Your task to perform on an android device: Go to accessibility settings Image 0: 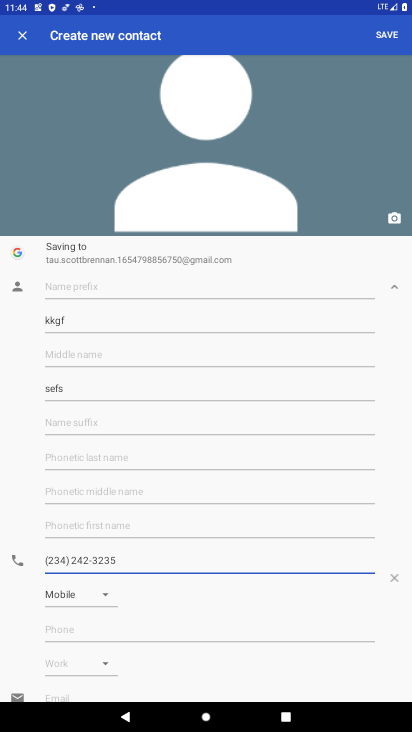
Step 0: drag from (301, 613) to (260, 262)
Your task to perform on an android device: Go to accessibility settings Image 1: 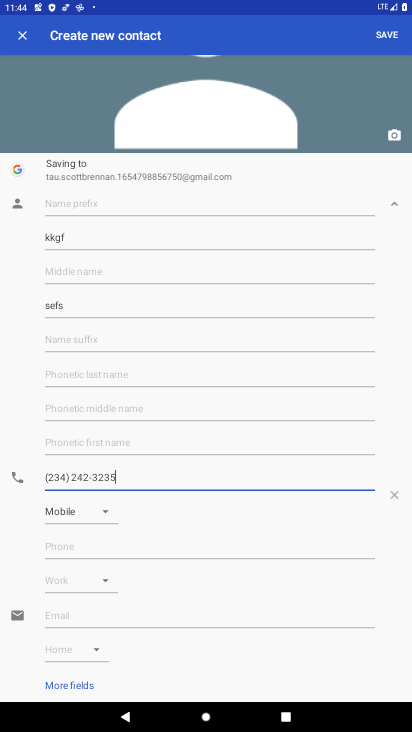
Step 1: press home button
Your task to perform on an android device: Go to accessibility settings Image 2: 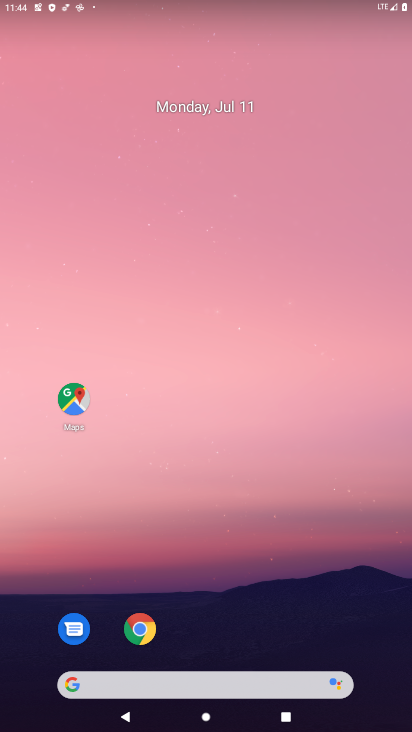
Step 2: drag from (213, 633) to (187, 52)
Your task to perform on an android device: Go to accessibility settings Image 3: 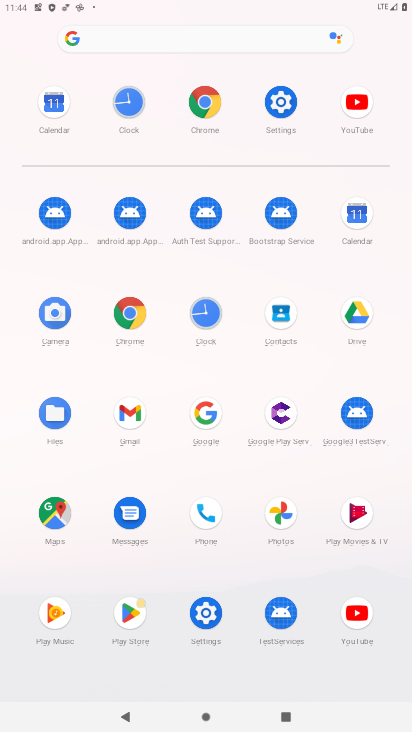
Step 3: click (268, 101)
Your task to perform on an android device: Go to accessibility settings Image 4: 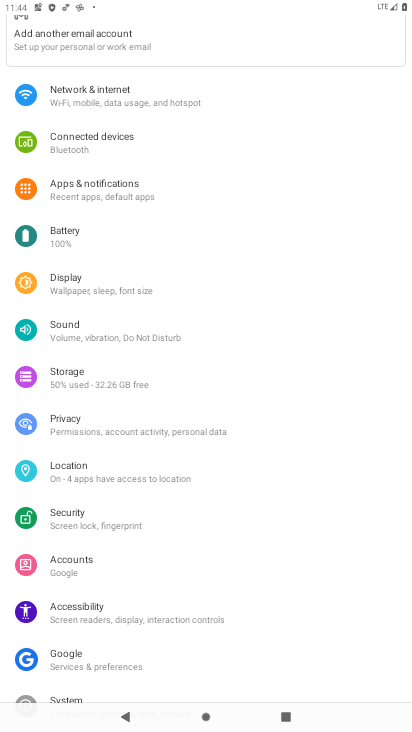
Step 4: click (174, 613)
Your task to perform on an android device: Go to accessibility settings Image 5: 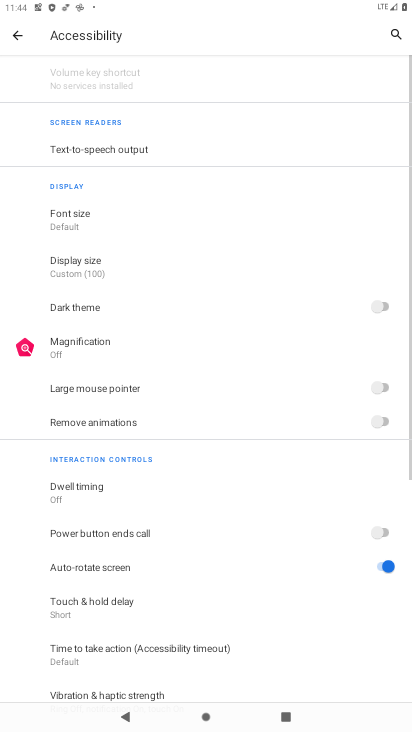
Step 5: task complete